Your task to perform on an android device: Open Reddit.com Image 0: 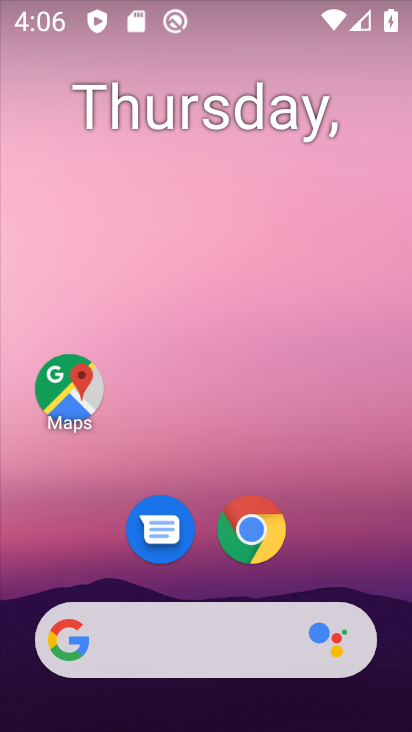
Step 0: click (262, 535)
Your task to perform on an android device: Open Reddit.com Image 1: 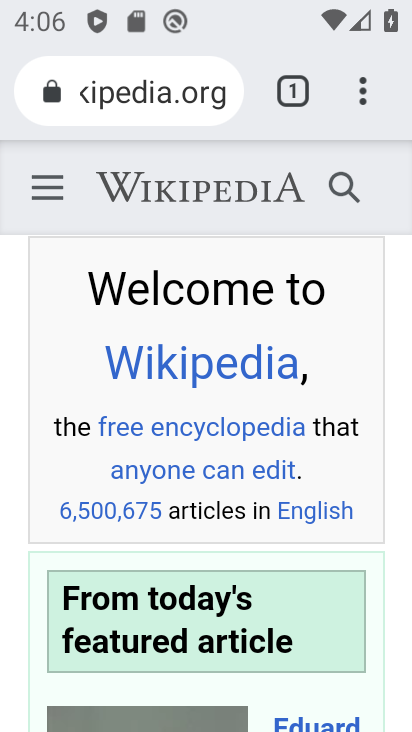
Step 1: click (362, 97)
Your task to perform on an android device: Open Reddit.com Image 2: 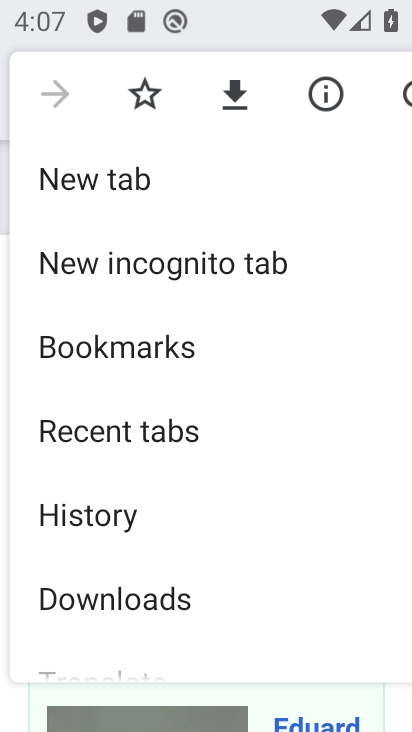
Step 2: click (111, 181)
Your task to perform on an android device: Open Reddit.com Image 3: 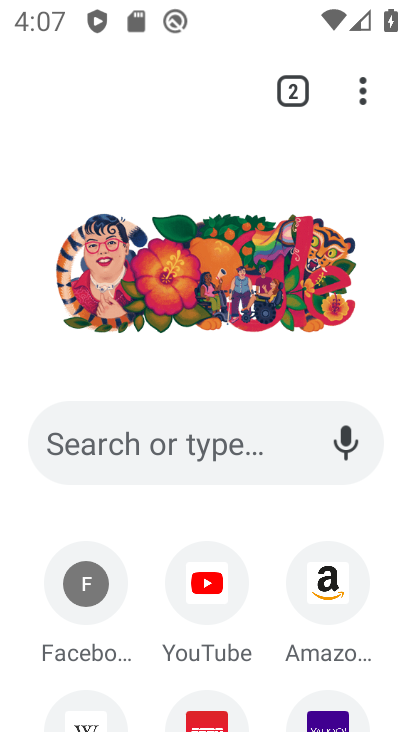
Step 3: click (194, 456)
Your task to perform on an android device: Open Reddit.com Image 4: 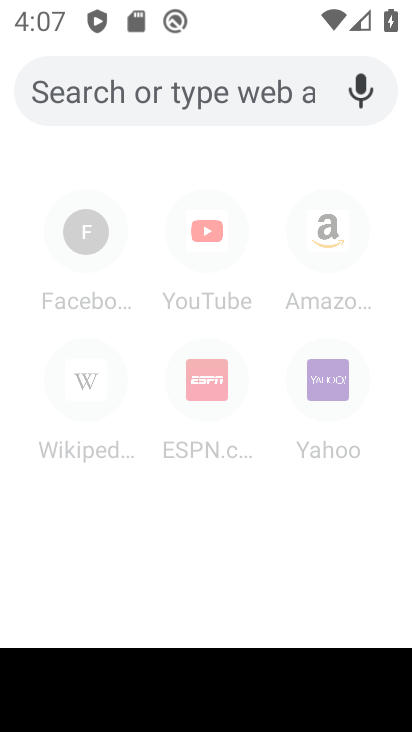
Step 4: type "Reddit.com"
Your task to perform on an android device: Open Reddit.com Image 5: 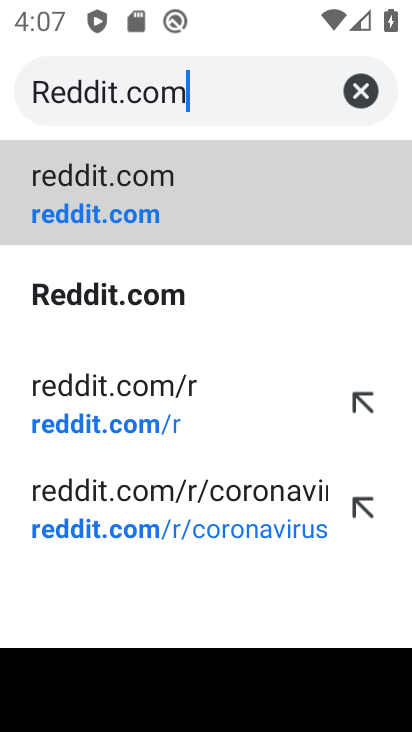
Step 5: click (82, 210)
Your task to perform on an android device: Open Reddit.com Image 6: 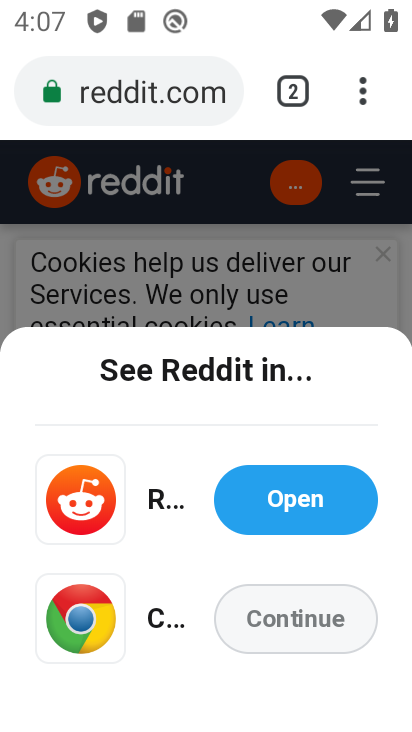
Step 6: task complete